Your task to perform on an android device: see tabs open on other devices in the chrome app Image 0: 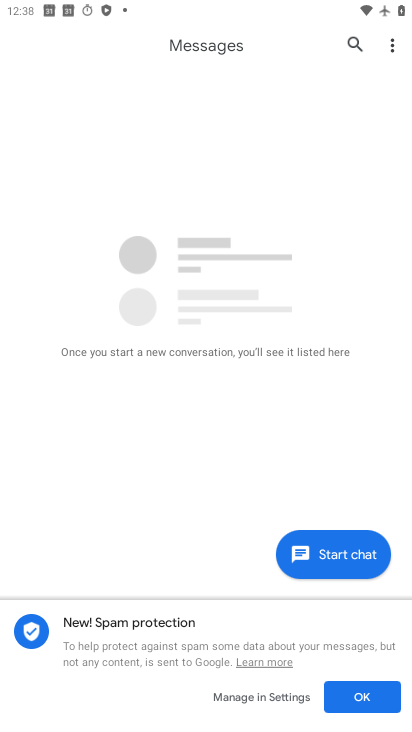
Step 0: press home button
Your task to perform on an android device: see tabs open on other devices in the chrome app Image 1: 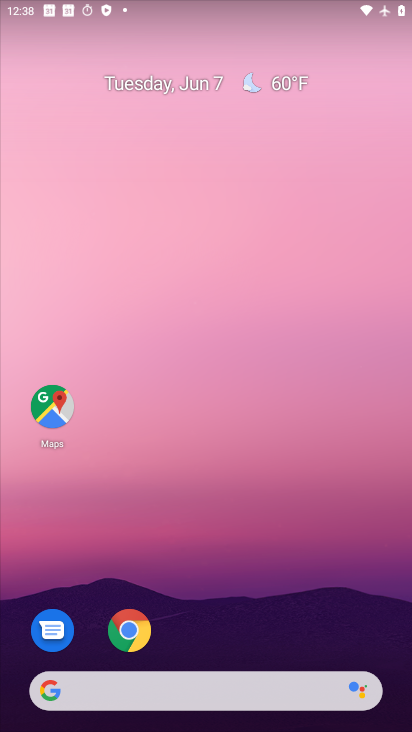
Step 1: drag from (322, 610) to (294, 20)
Your task to perform on an android device: see tabs open on other devices in the chrome app Image 2: 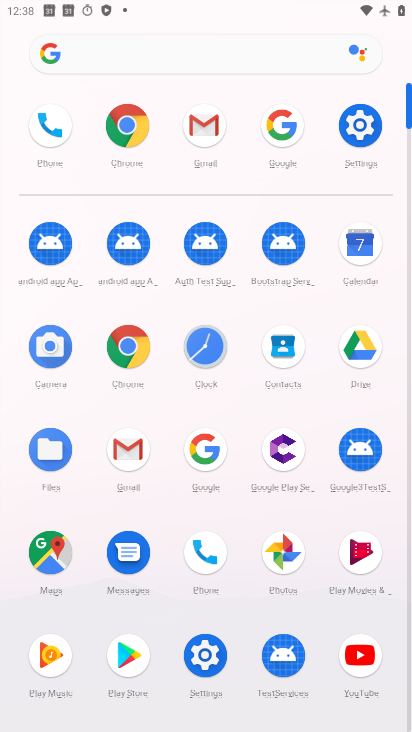
Step 2: click (119, 132)
Your task to perform on an android device: see tabs open on other devices in the chrome app Image 3: 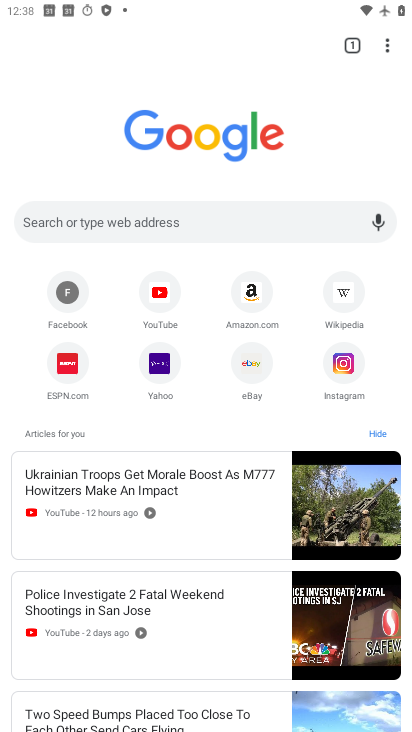
Step 3: task complete